Your task to perform on an android device: Go to battery settings Image 0: 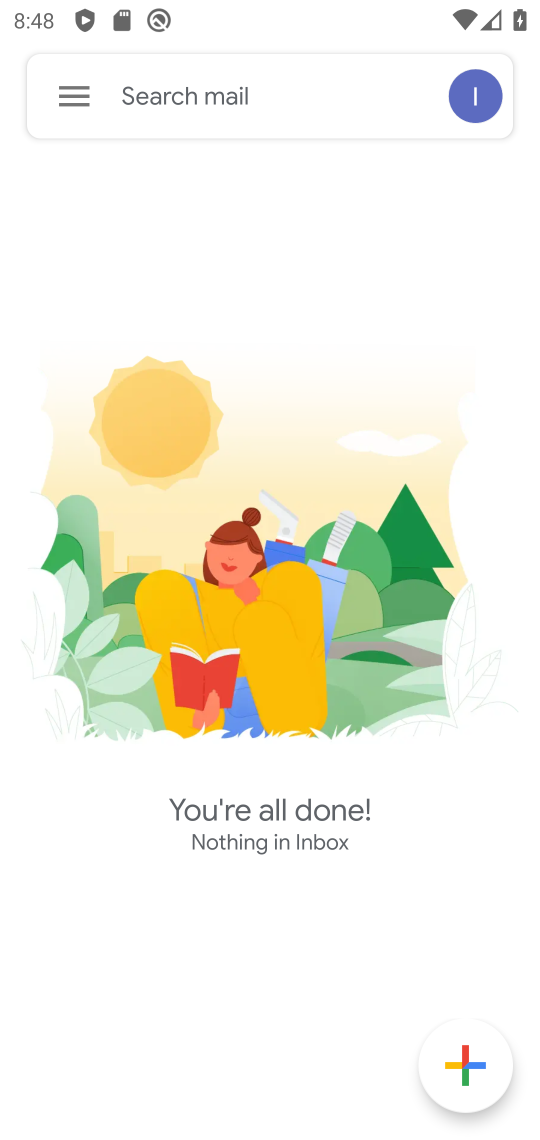
Step 0: press home button
Your task to perform on an android device: Go to battery settings Image 1: 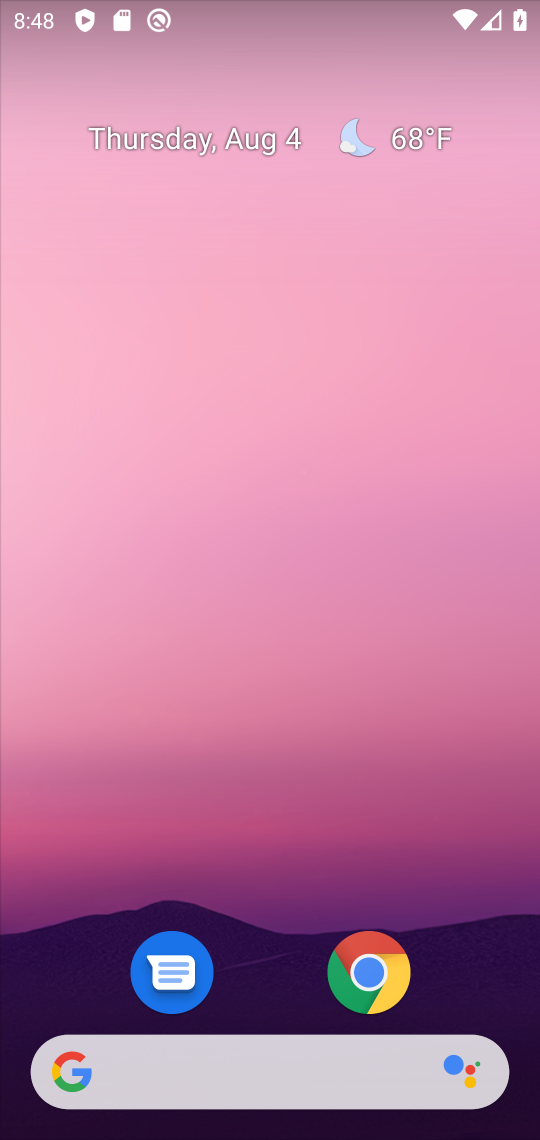
Step 1: drag from (299, 909) to (352, 46)
Your task to perform on an android device: Go to battery settings Image 2: 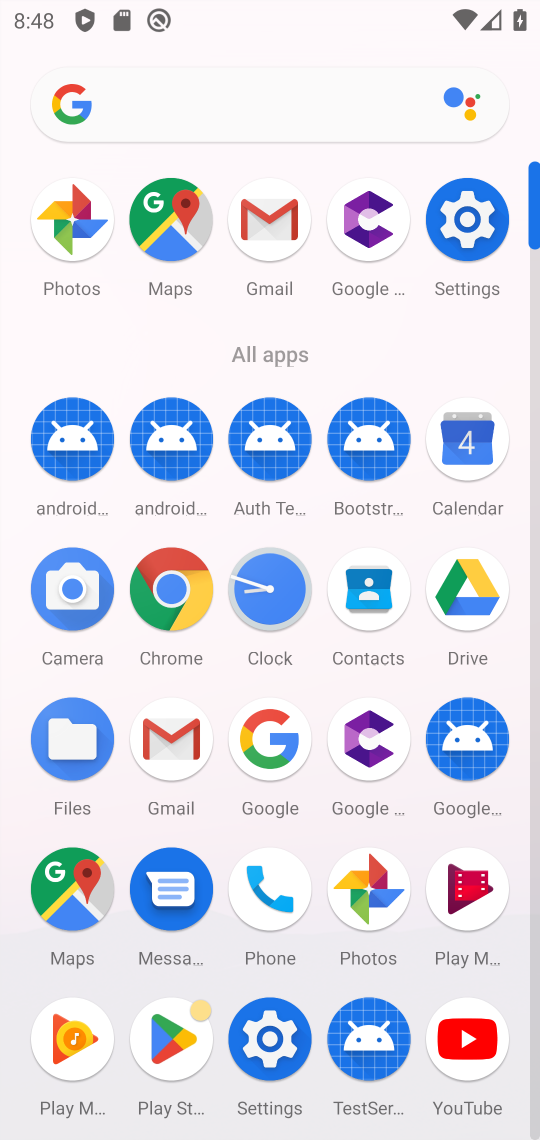
Step 2: click (464, 223)
Your task to perform on an android device: Go to battery settings Image 3: 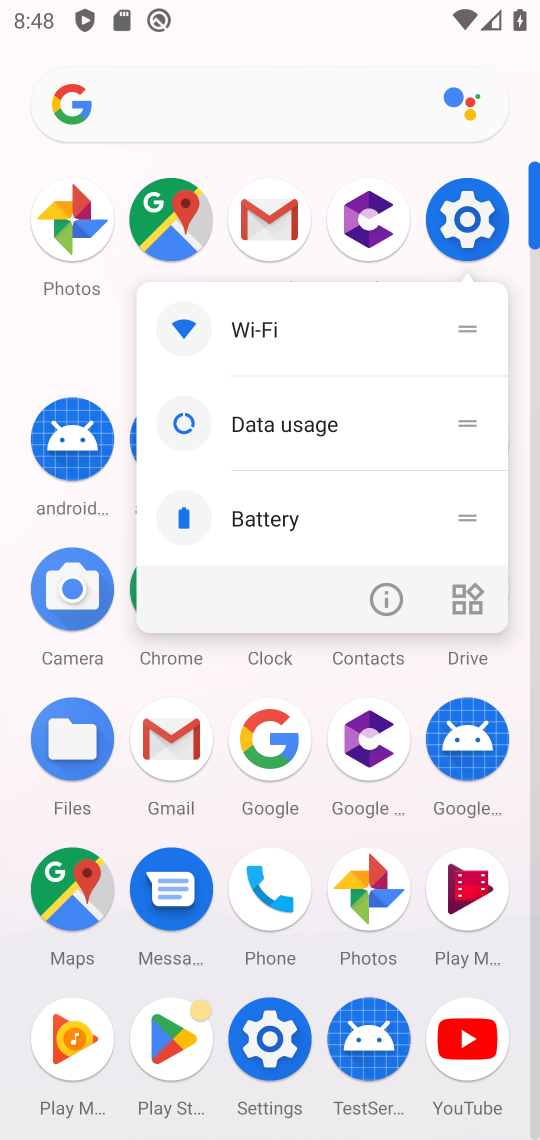
Step 3: click (464, 223)
Your task to perform on an android device: Go to battery settings Image 4: 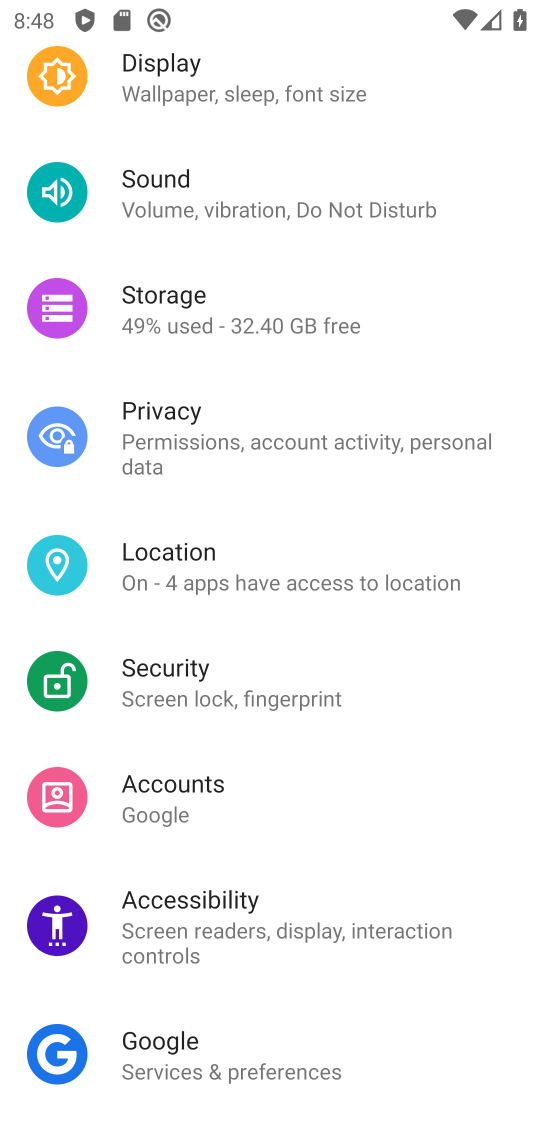
Step 4: drag from (265, 163) to (281, 921)
Your task to perform on an android device: Go to battery settings Image 5: 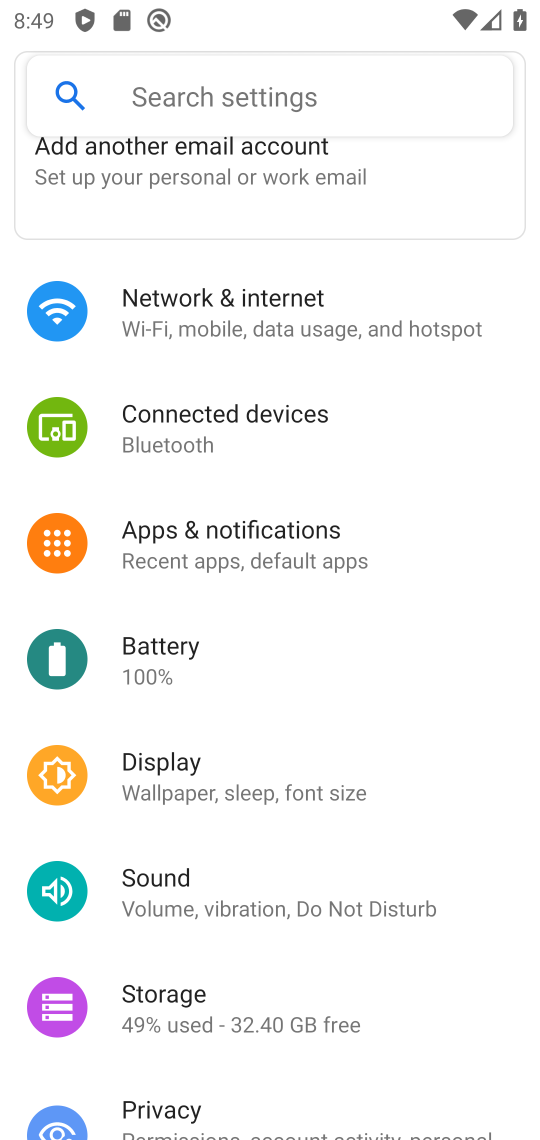
Step 5: click (227, 656)
Your task to perform on an android device: Go to battery settings Image 6: 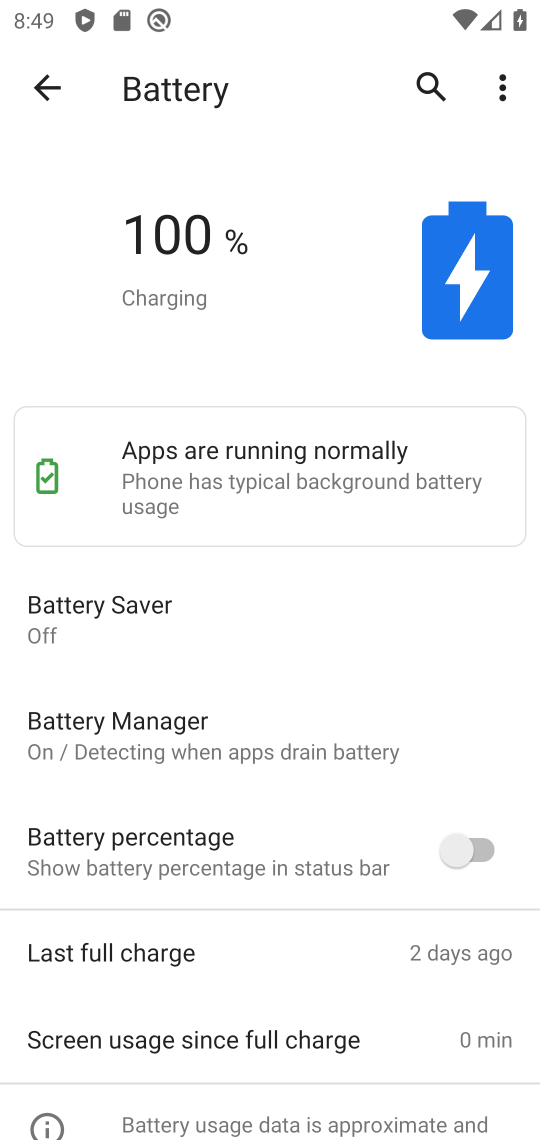
Step 6: task complete